Your task to perform on an android device: Show me popular games on the Play Store Image 0: 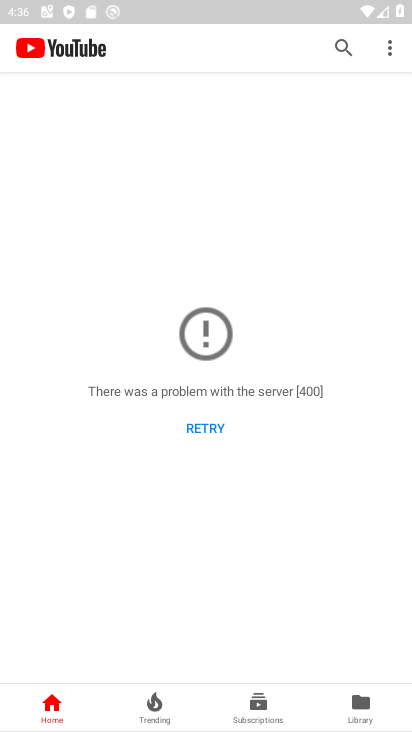
Step 0: press home button
Your task to perform on an android device: Show me popular games on the Play Store Image 1: 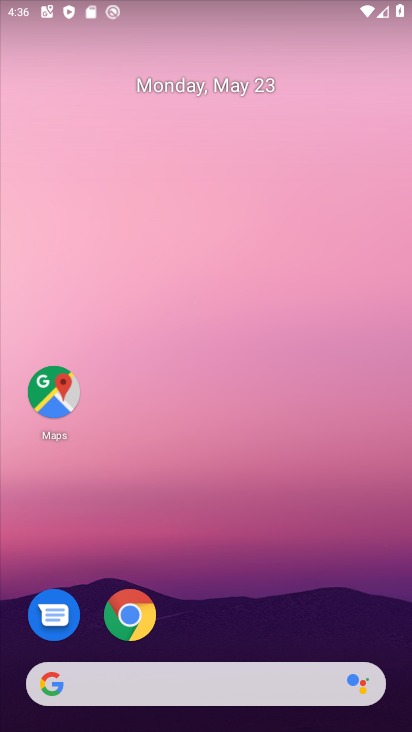
Step 1: drag from (197, 620) to (265, 138)
Your task to perform on an android device: Show me popular games on the Play Store Image 2: 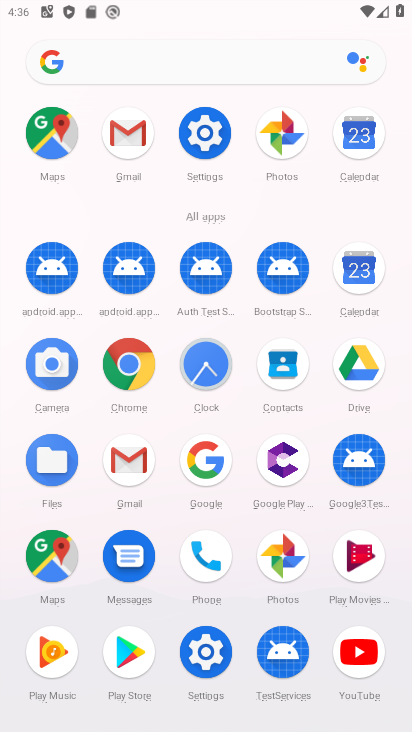
Step 2: click (126, 645)
Your task to perform on an android device: Show me popular games on the Play Store Image 3: 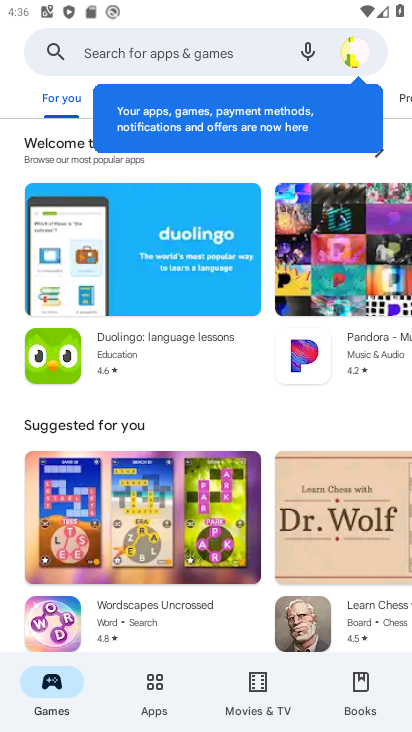
Step 3: drag from (231, 503) to (288, 97)
Your task to perform on an android device: Show me popular games on the Play Store Image 4: 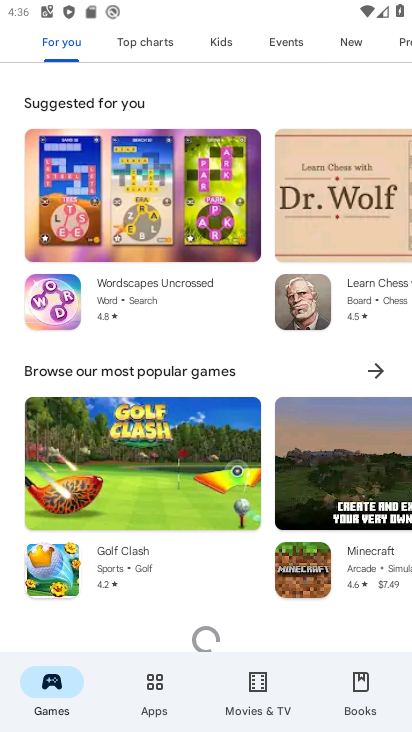
Step 4: drag from (176, 528) to (192, 442)
Your task to perform on an android device: Show me popular games on the Play Store Image 5: 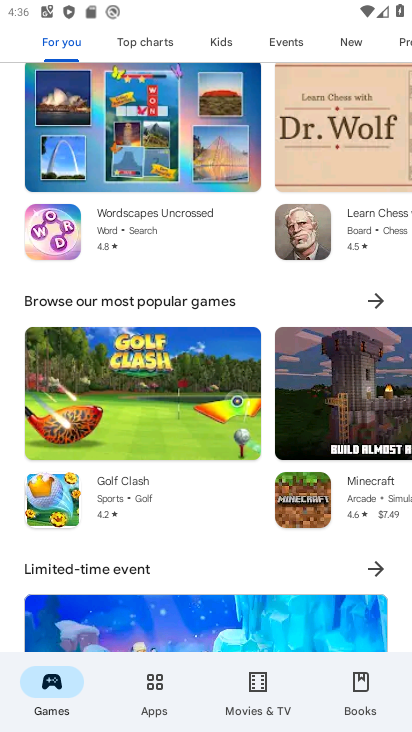
Step 5: click (366, 293)
Your task to perform on an android device: Show me popular games on the Play Store Image 6: 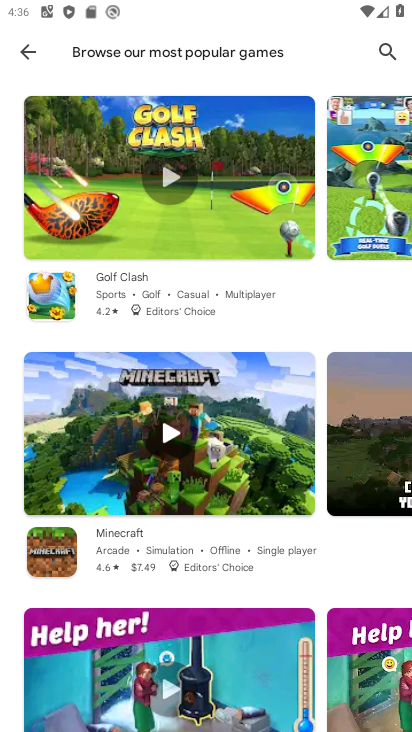
Step 6: task complete